Your task to perform on an android device: Go to Yahoo.com Image 0: 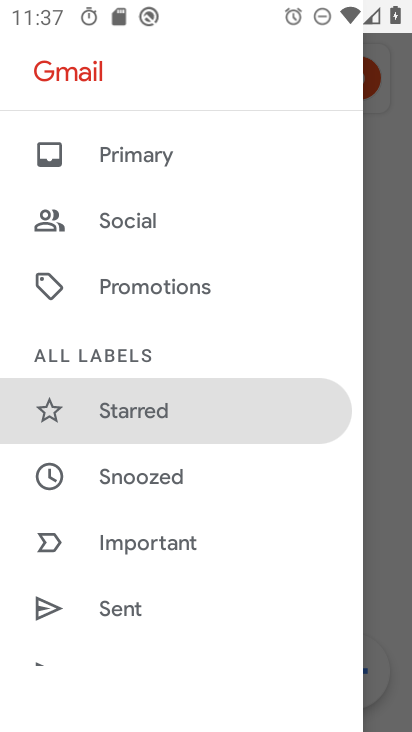
Step 0: press home button
Your task to perform on an android device: Go to Yahoo.com Image 1: 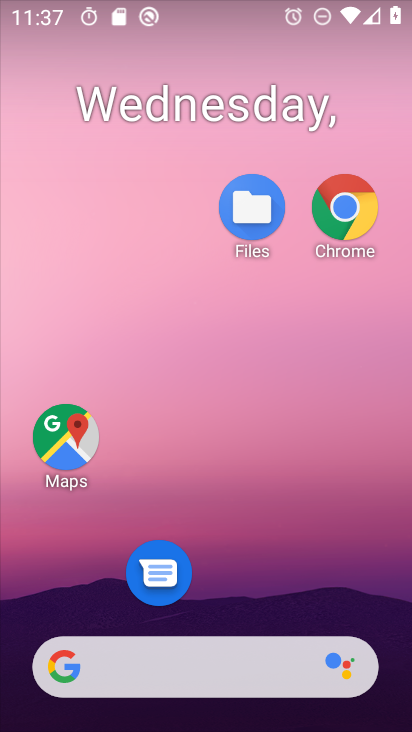
Step 1: click (370, 220)
Your task to perform on an android device: Go to Yahoo.com Image 2: 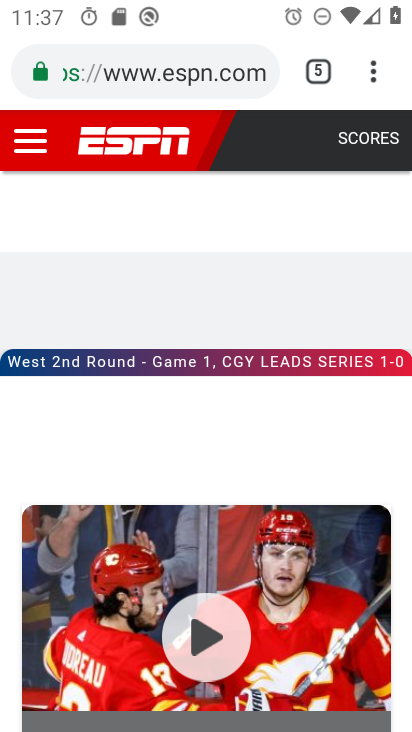
Step 2: click (186, 79)
Your task to perform on an android device: Go to Yahoo.com Image 3: 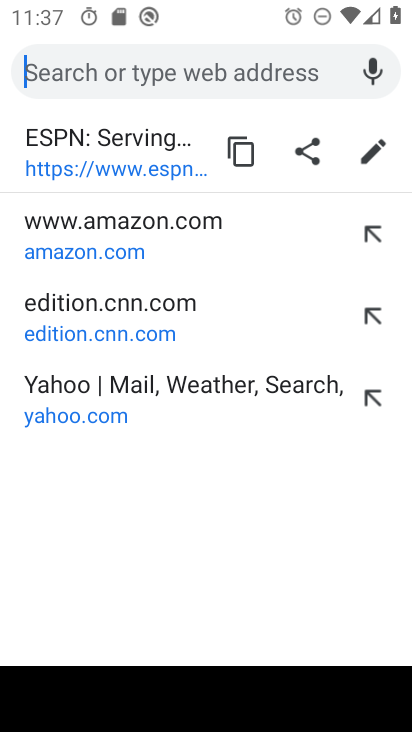
Step 3: click (174, 405)
Your task to perform on an android device: Go to Yahoo.com Image 4: 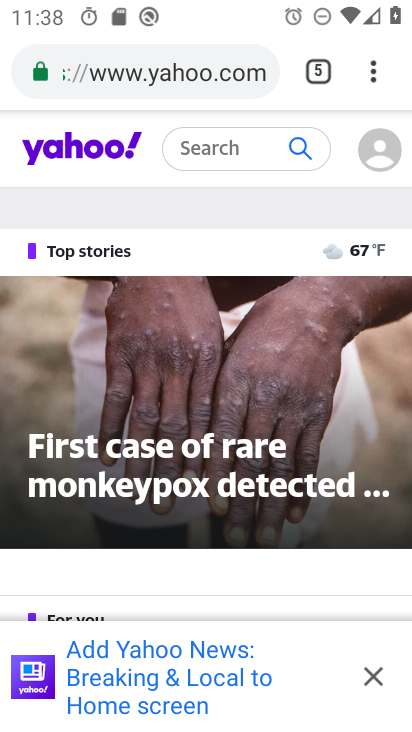
Step 4: task complete